Your task to perform on an android device: Go to ESPN.com Image 0: 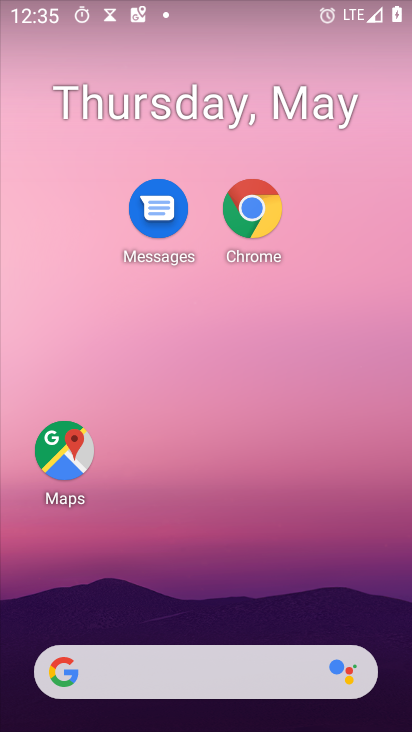
Step 0: click (251, 229)
Your task to perform on an android device: Go to ESPN.com Image 1: 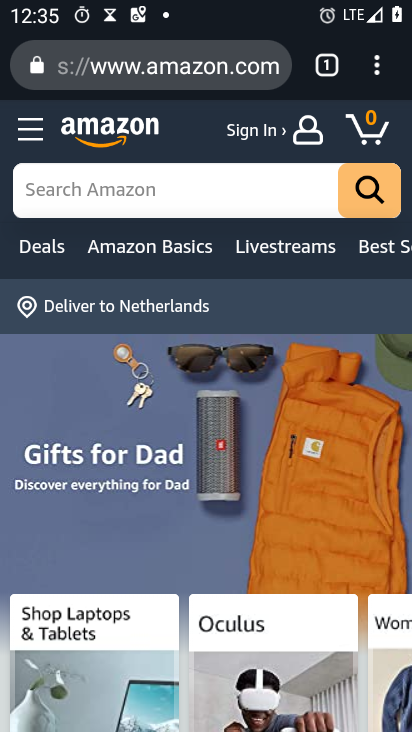
Step 1: press back button
Your task to perform on an android device: Go to ESPN.com Image 2: 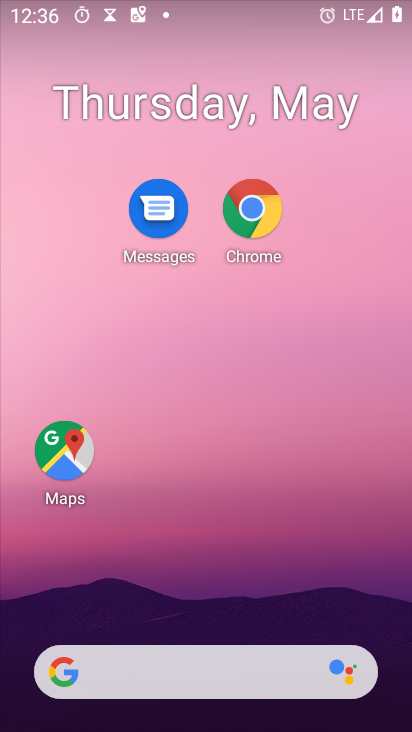
Step 2: click (246, 205)
Your task to perform on an android device: Go to ESPN.com Image 3: 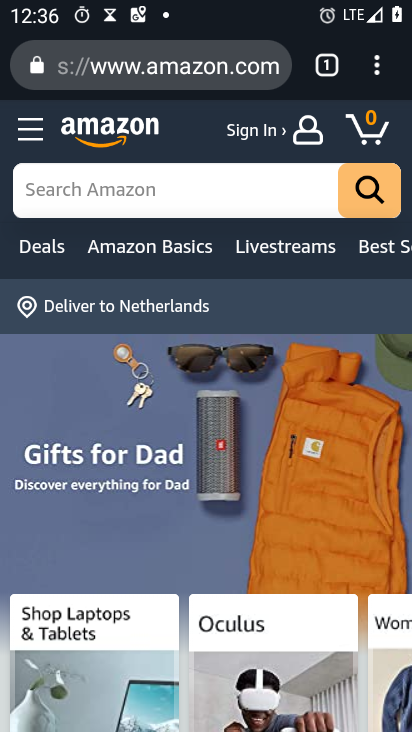
Step 3: click (214, 73)
Your task to perform on an android device: Go to ESPN.com Image 4: 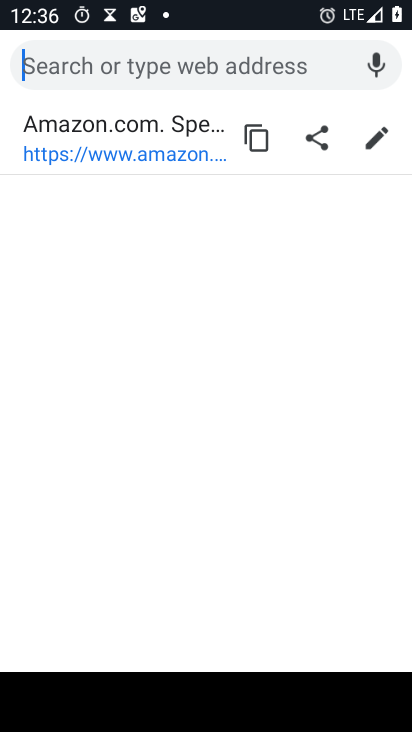
Step 4: type ""
Your task to perform on an android device: Go to ESPN.com Image 5: 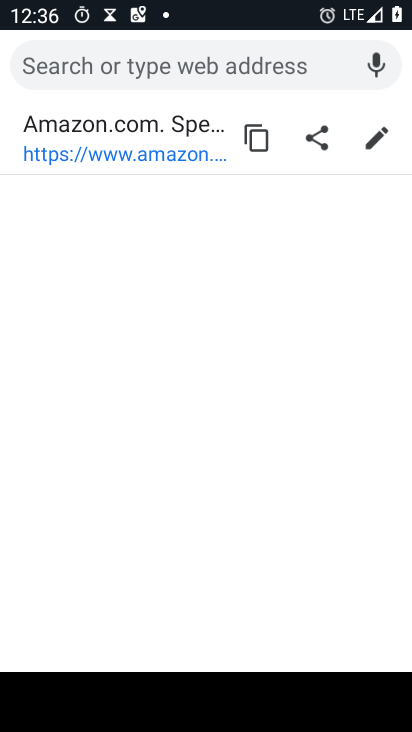
Step 5: type "www.espn.com"
Your task to perform on an android device: Go to ESPN.com Image 6: 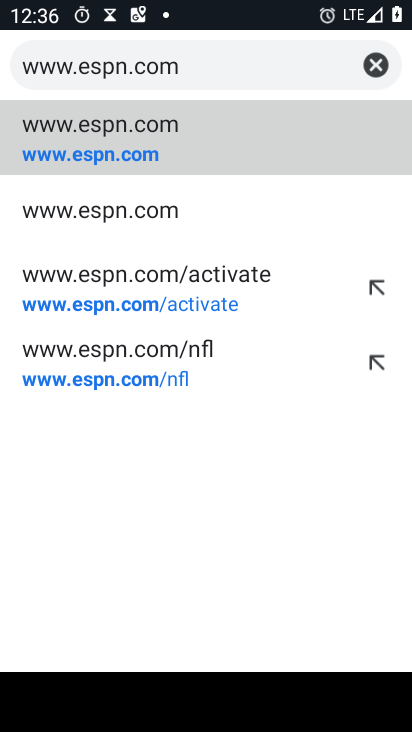
Step 6: click (110, 143)
Your task to perform on an android device: Go to ESPN.com Image 7: 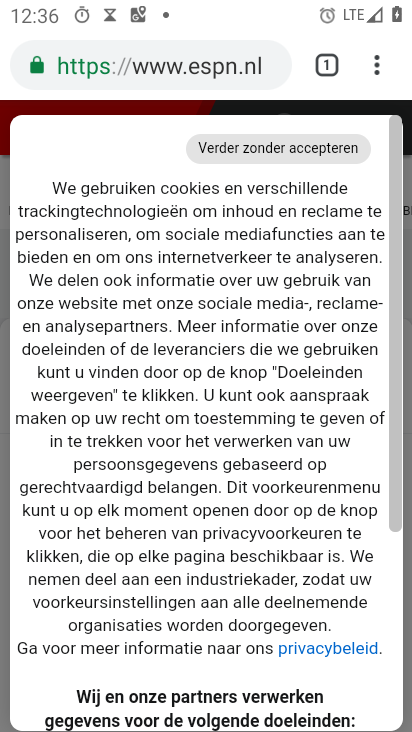
Step 7: task complete